Your task to perform on an android device: toggle translation in the chrome app Image 0: 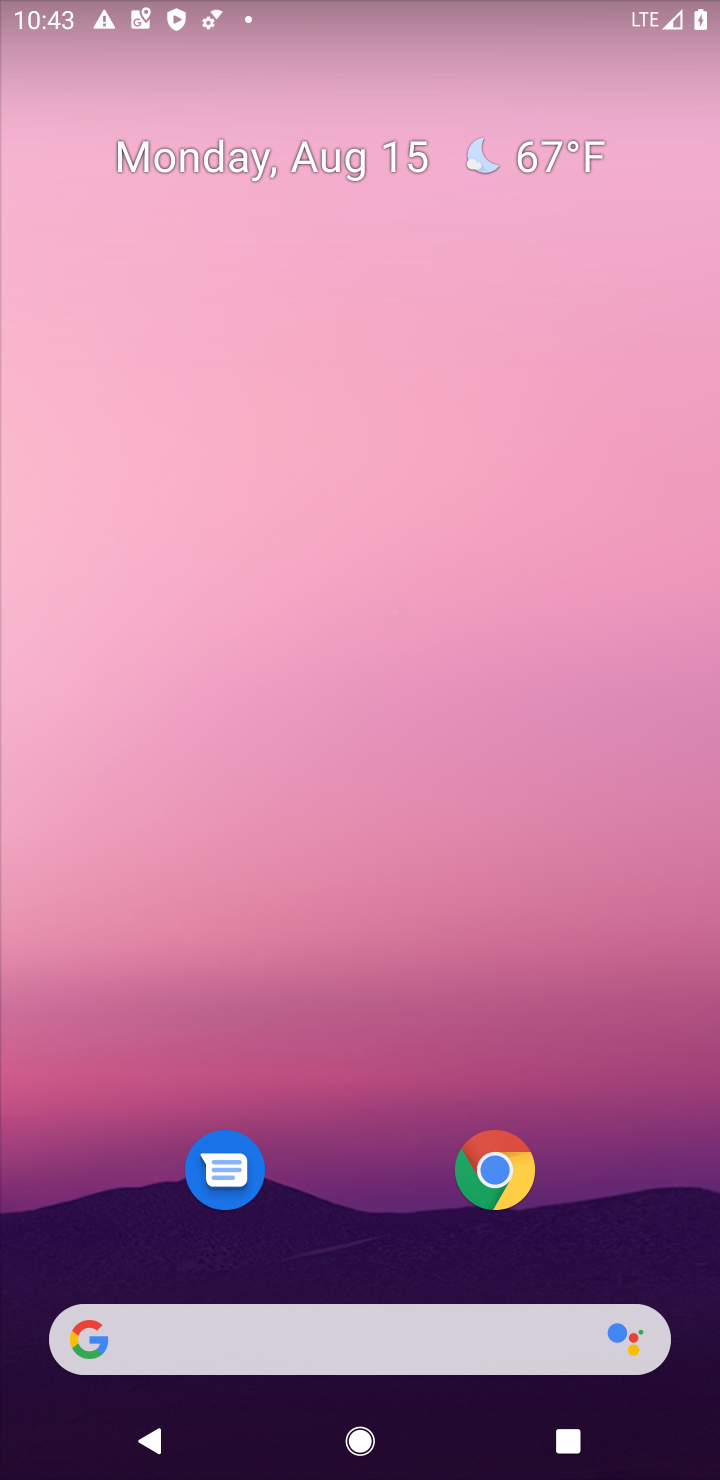
Step 0: drag from (368, 1169) to (389, 45)
Your task to perform on an android device: toggle translation in the chrome app Image 1: 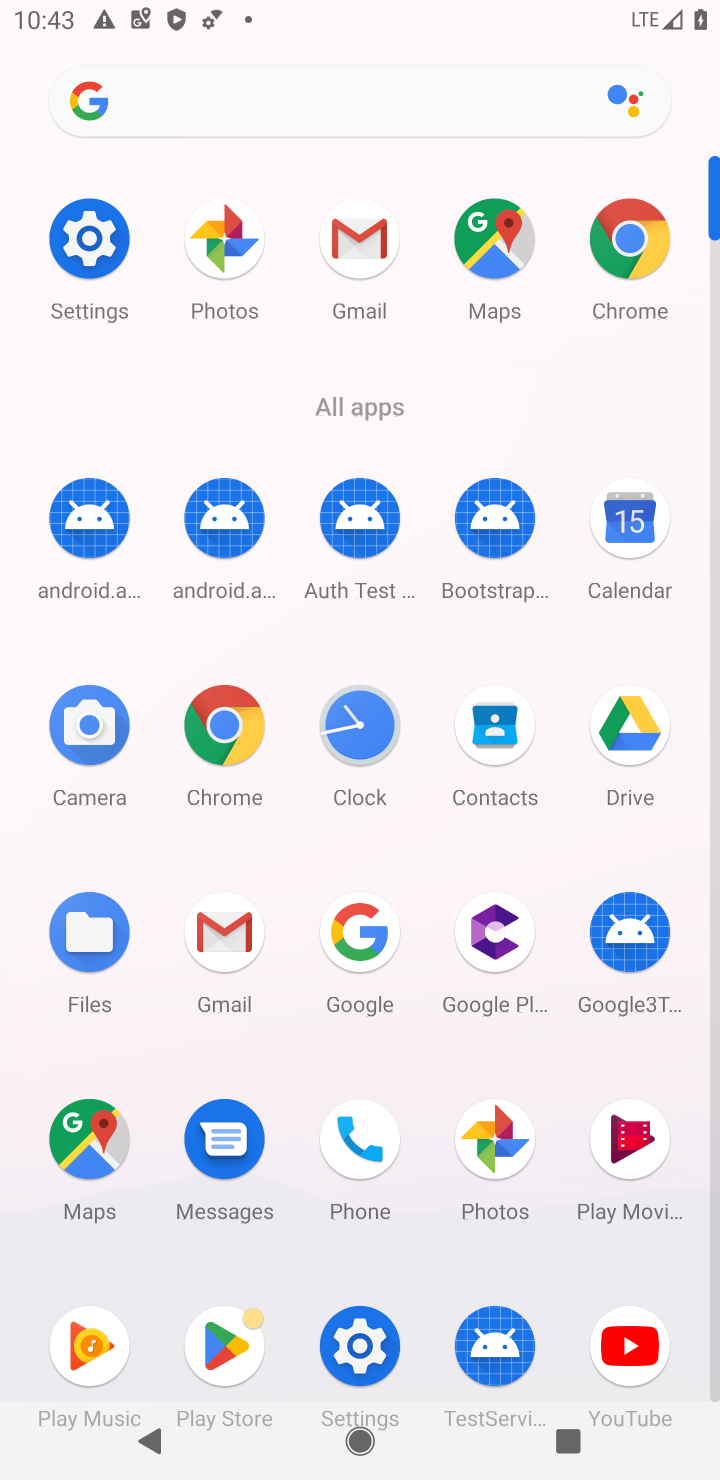
Step 1: click (217, 714)
Your task to perform on an android device: toggle translation in the chrome app Image 2: 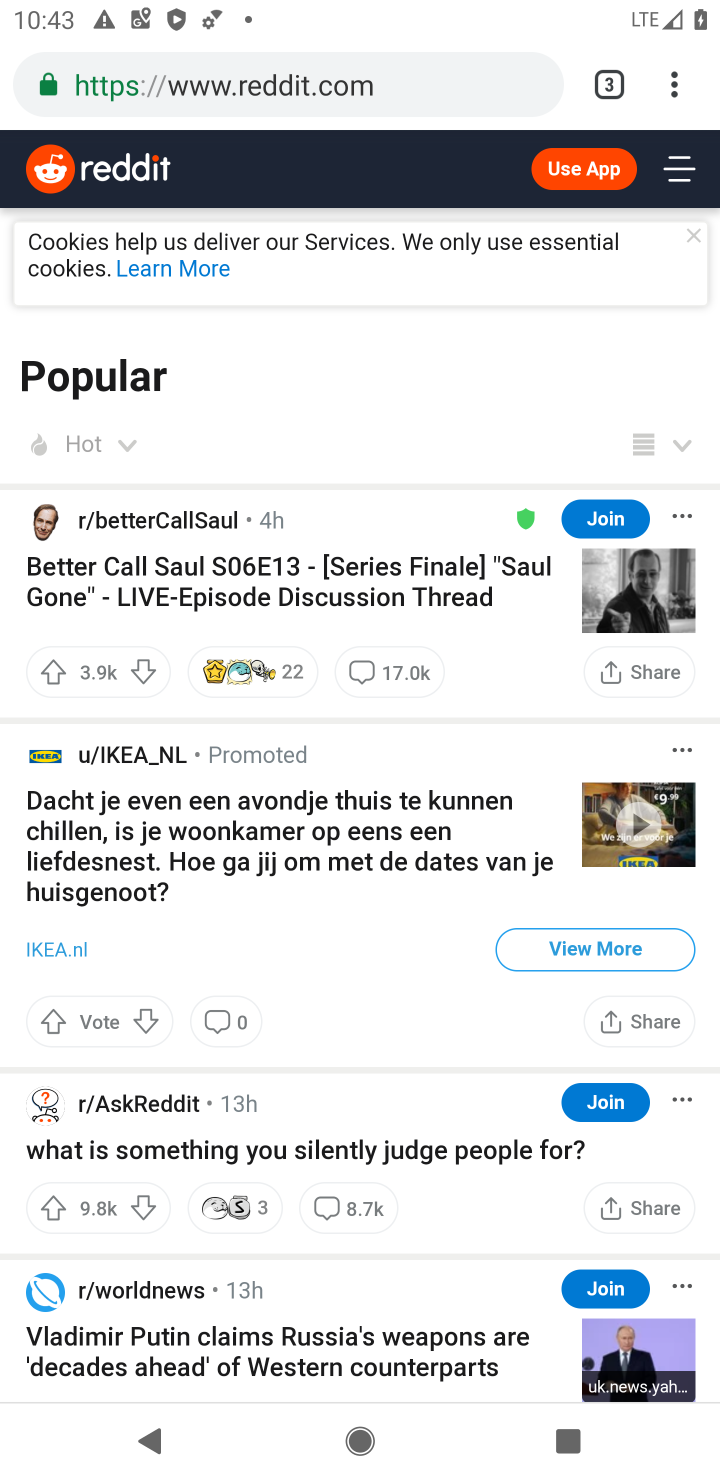
Step 2: click (673, 82)
Your task to perform on an android device: toggle translation in the chrome app Image 3: 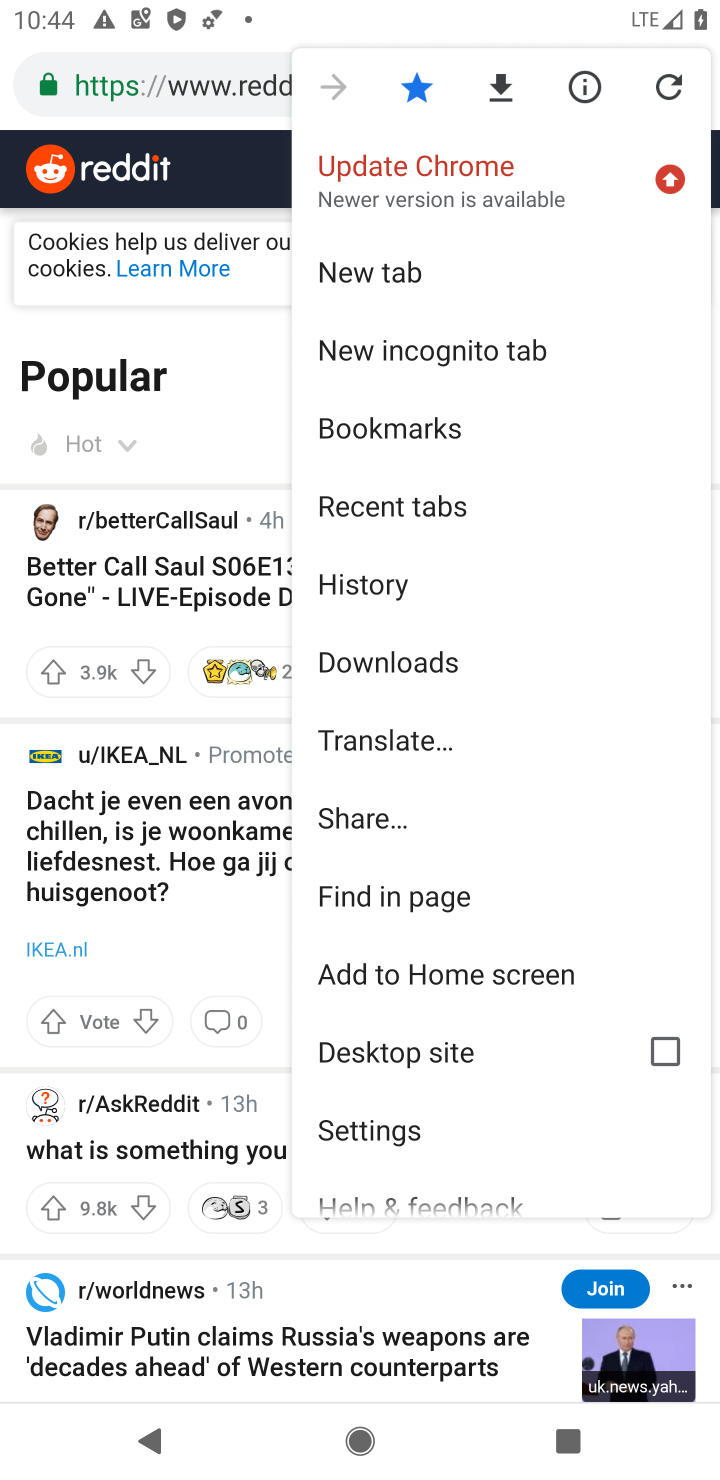
Step 3: click (433, 1119)
Your task to perform on an android device: toggle translation in the chrome app Image 4: 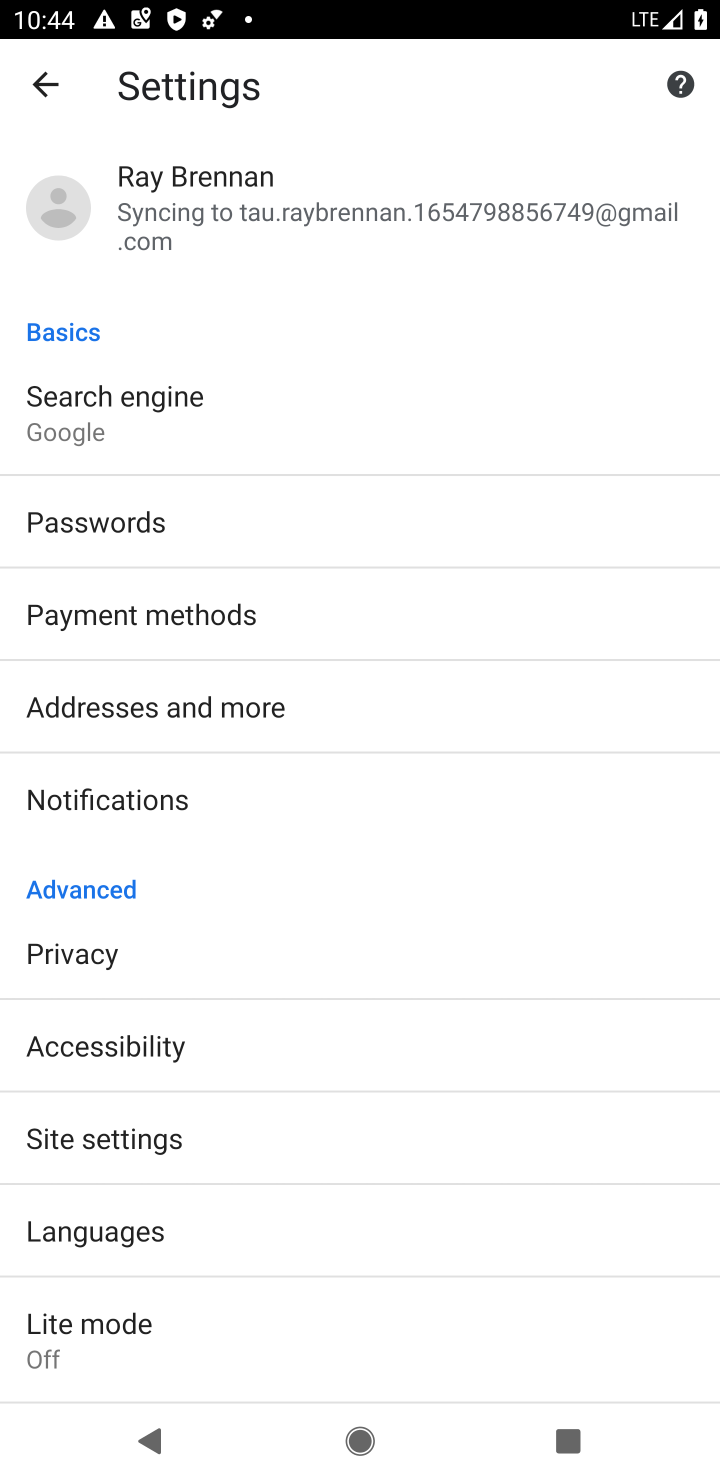
Step 4: click (193, 1237)
Your task to perform on an android device: toggle translation in the chrome app Image 5: 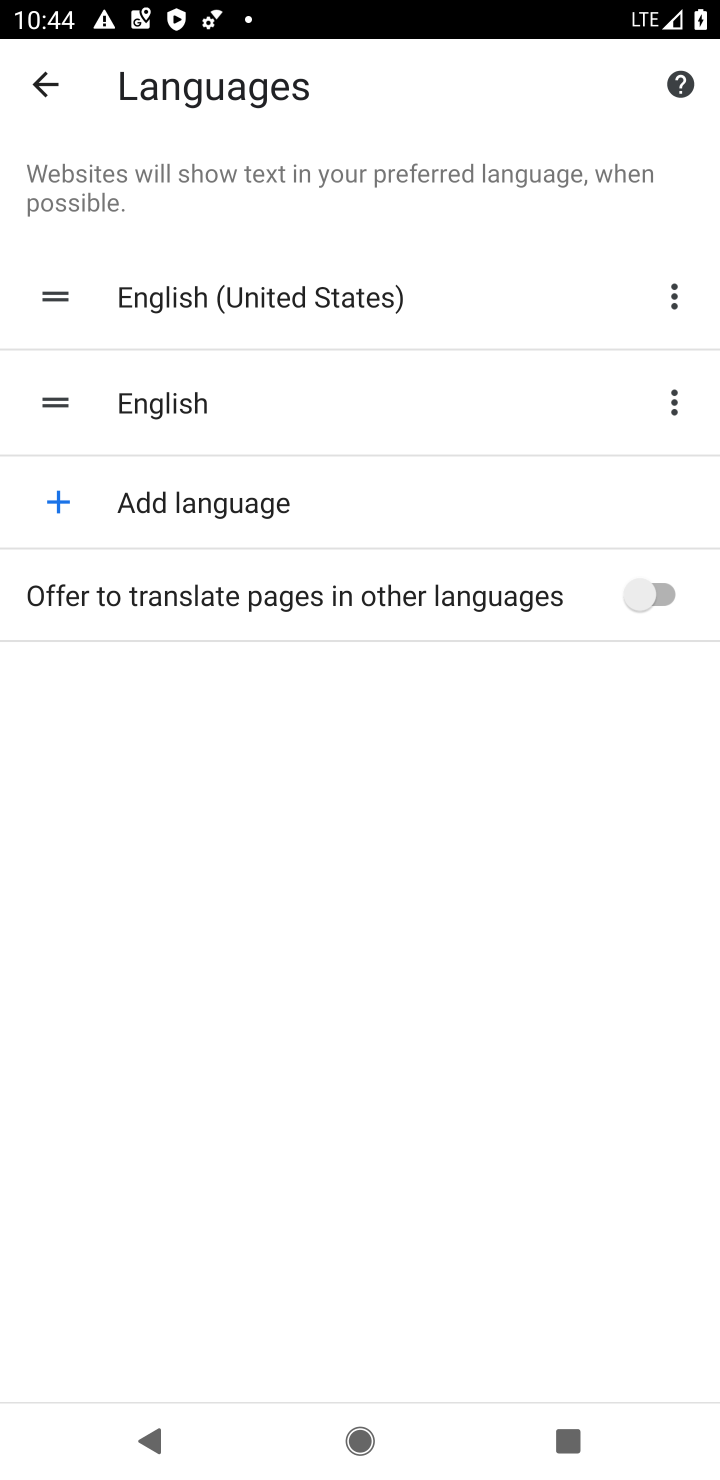
Step 5: click (655, 579)
Your task to perform on an android device: toggle translation in the chrome app Image 6: 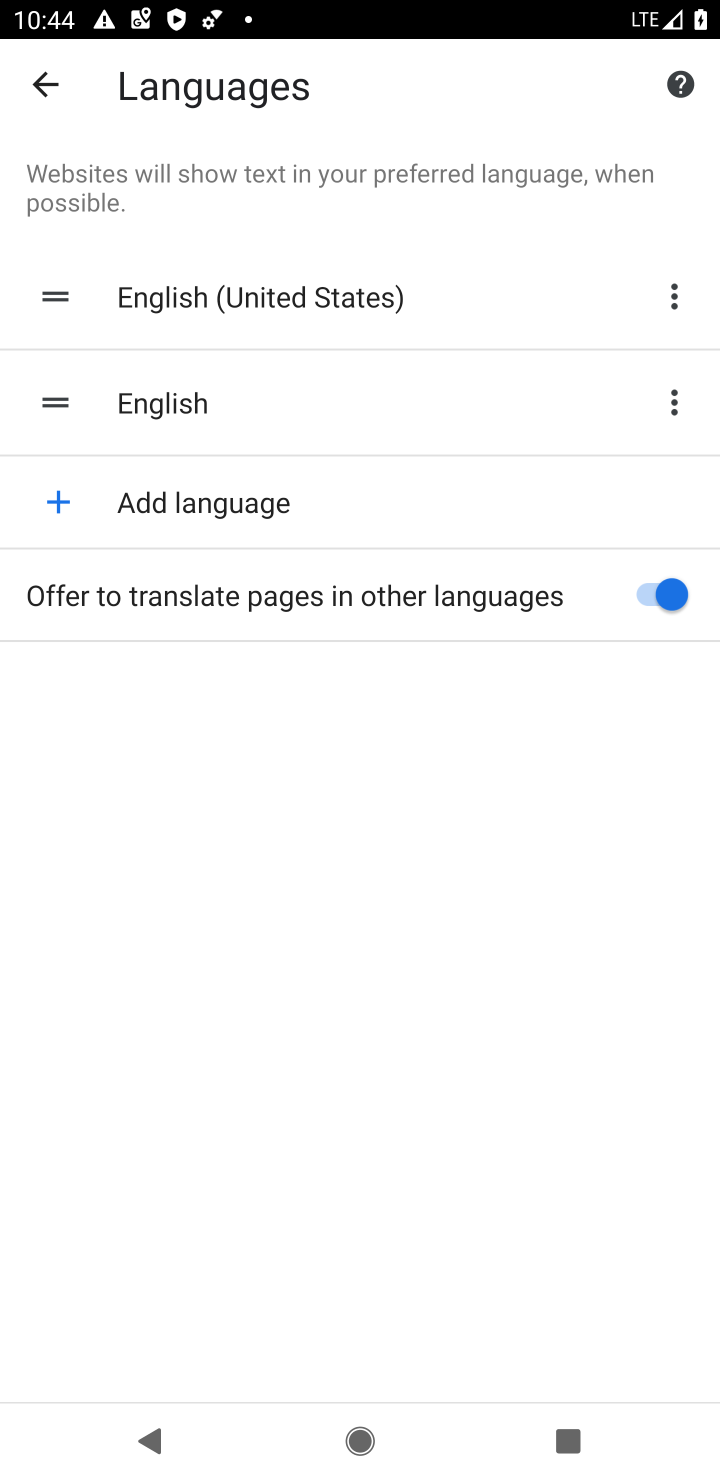
Step 6: task complete